Your task to perform on an android device: Open Amazon Image 0: 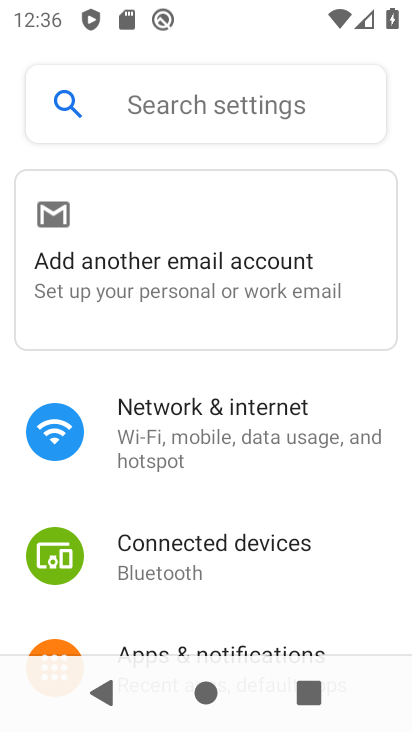
Step 0: press home button
Your task to perform on an android device: Open Amazon Image 1: 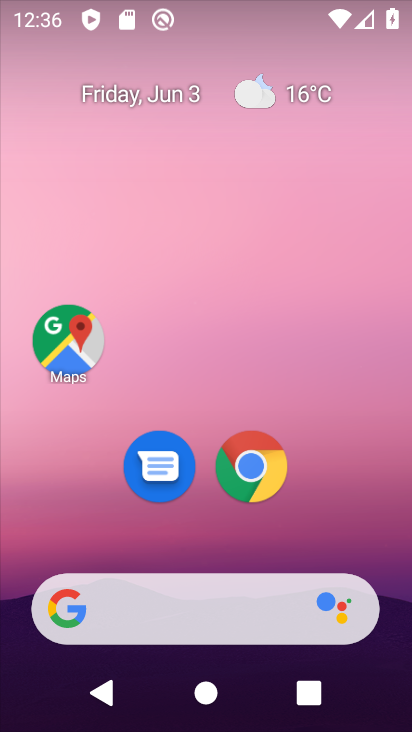
Step 1: drag from (190, 496) to (235, 161)
Your task to perform on an android device: Open Amazon Image 2: 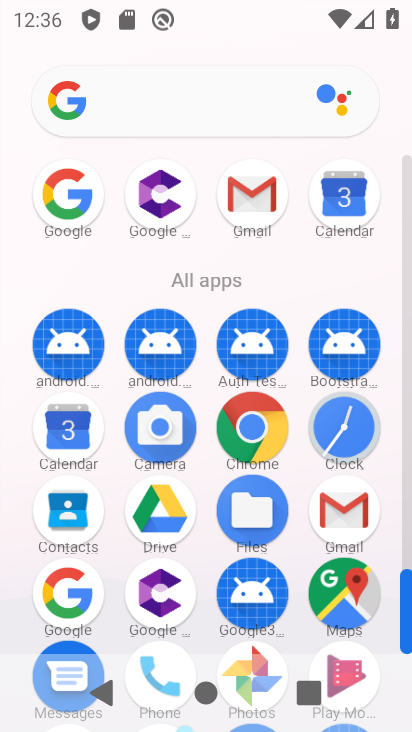
Step 2: click (69, 598)
Your task to perform on an android device: Open Amazon Image 3: 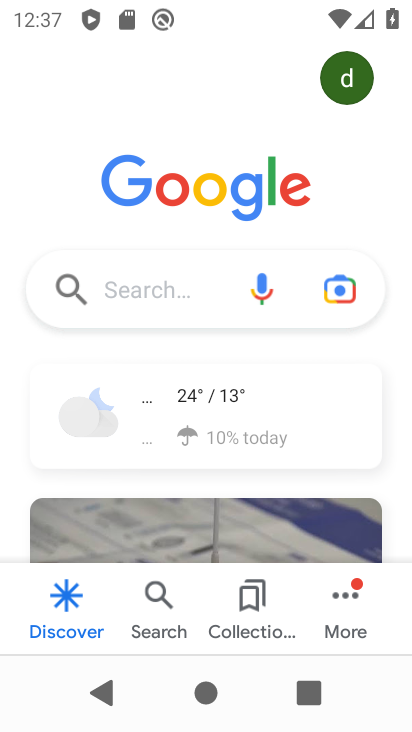
Step 3: click (169, 295)
Your task to perform on an android device: Open Amazon Image 4: 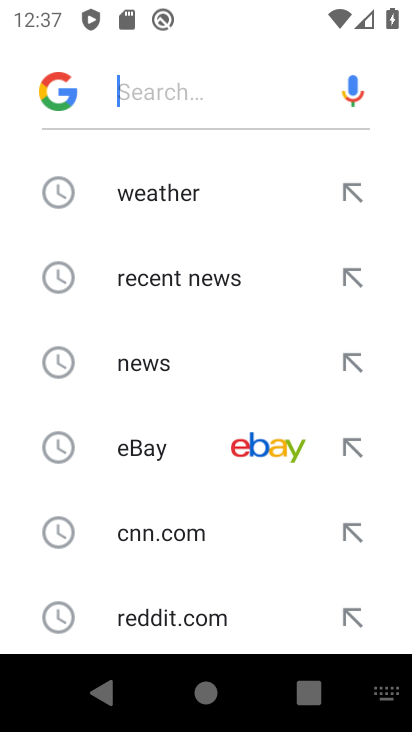
Step 4: drag from (180, 573) to (180, 213)
Your task to perform on an android device: Open Amazon Image 5: 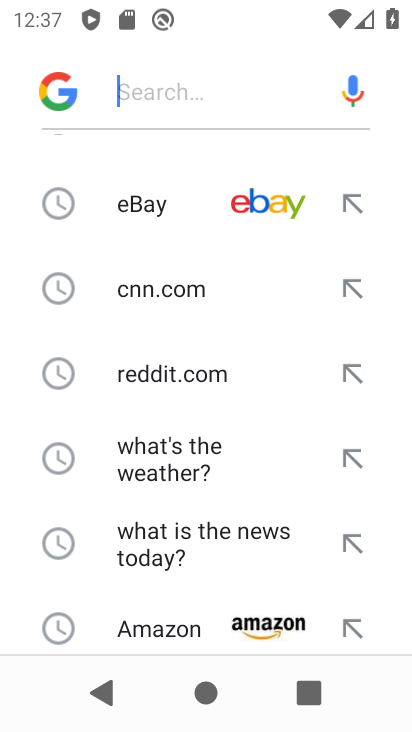
Step 5: click (152, 635)
Your task to perform on an android device: Open Amazon Image 6: 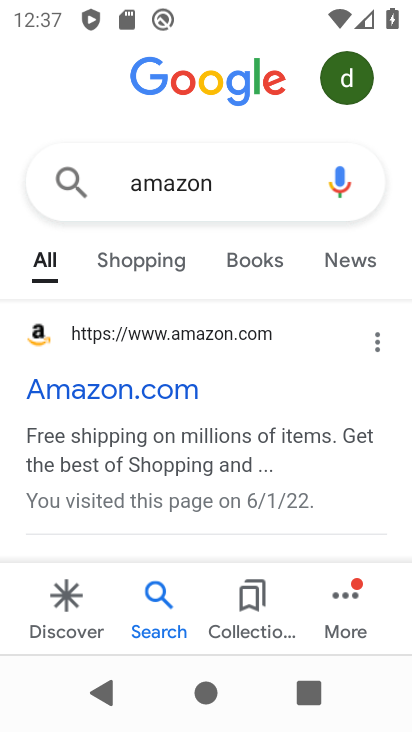
Step 6: task complete